Your task to perform on an android device: turn on priority inbox in the gmail app Image 0: 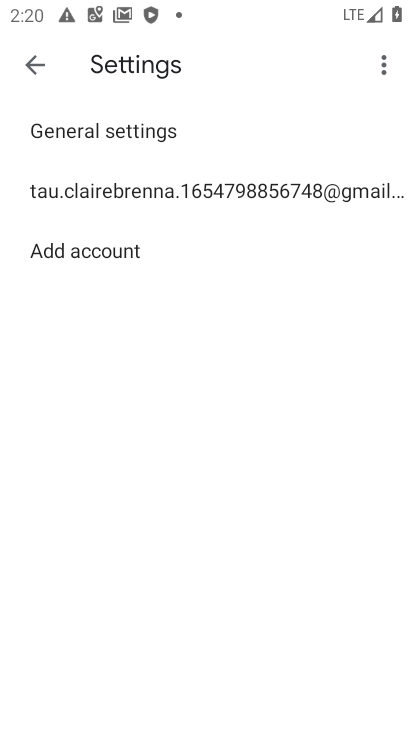
Step 0: press home button
Your task to perform on an android device: turn on priority inbox in the gmail app Image 1: 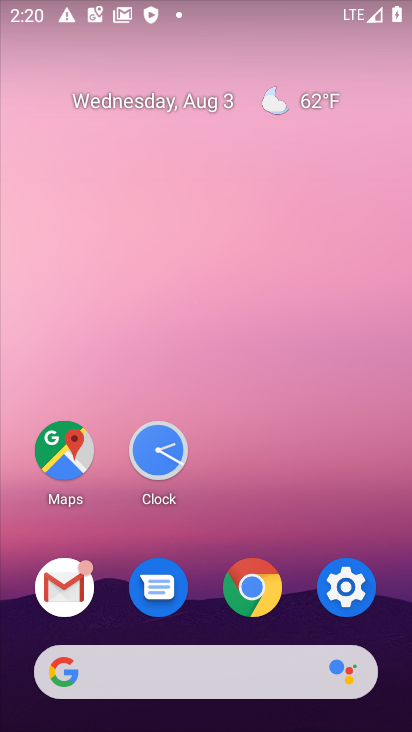
Step 1: click (62, 584)
Your task to perform on an android device: turn on priority inbox in the gmail app Image 2: 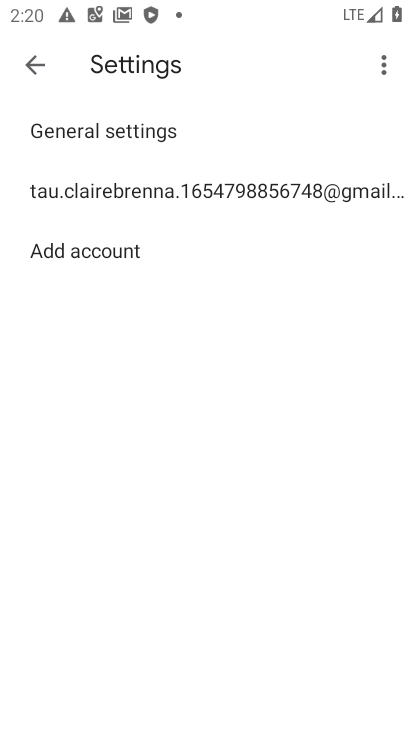
Step 2: click (120, 196)
Your task to perform on an android device: turn on priority inbox in the gmail app Image 3: 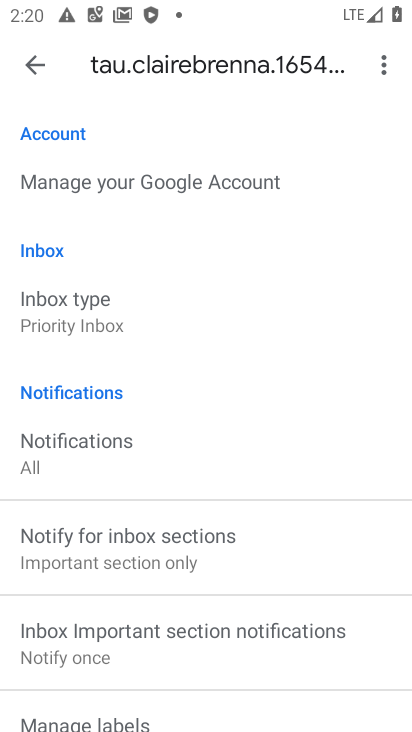
Step 3: click (63, 306)
Your task to perform on an android device: turn on priority inbox in the gmail app Image 4: 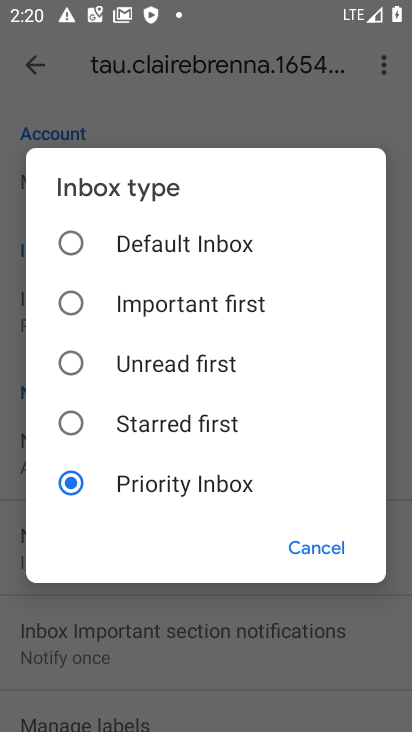
Step 4: task complete